Your task to perform on an android device: install app "DuckDuckGo Privacy Browser" Image 0: 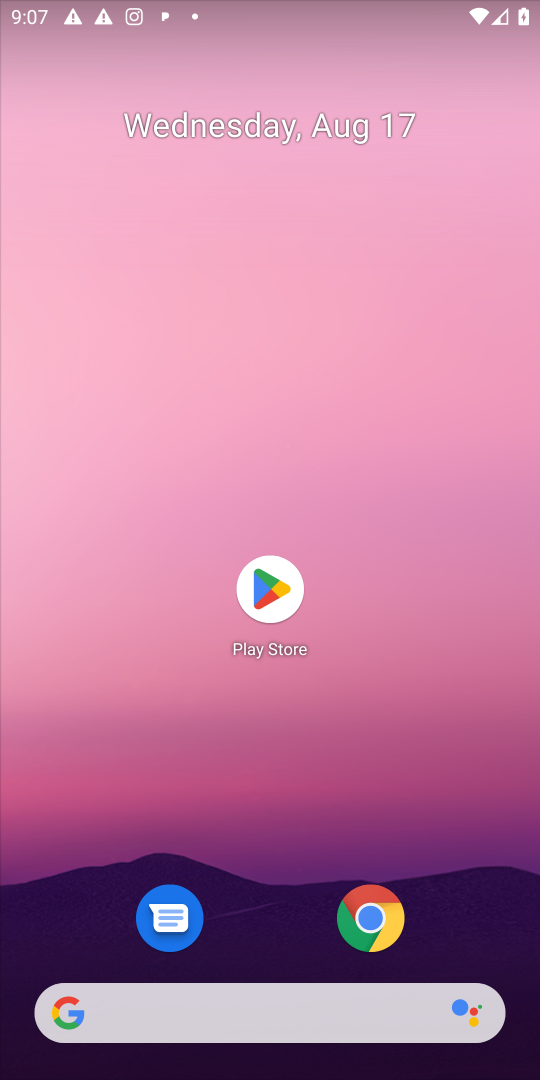
Step 0: click (277, 589)
Your task to perform on an android device: install app "DuckDuckGo Privacy Browser" Image 1: 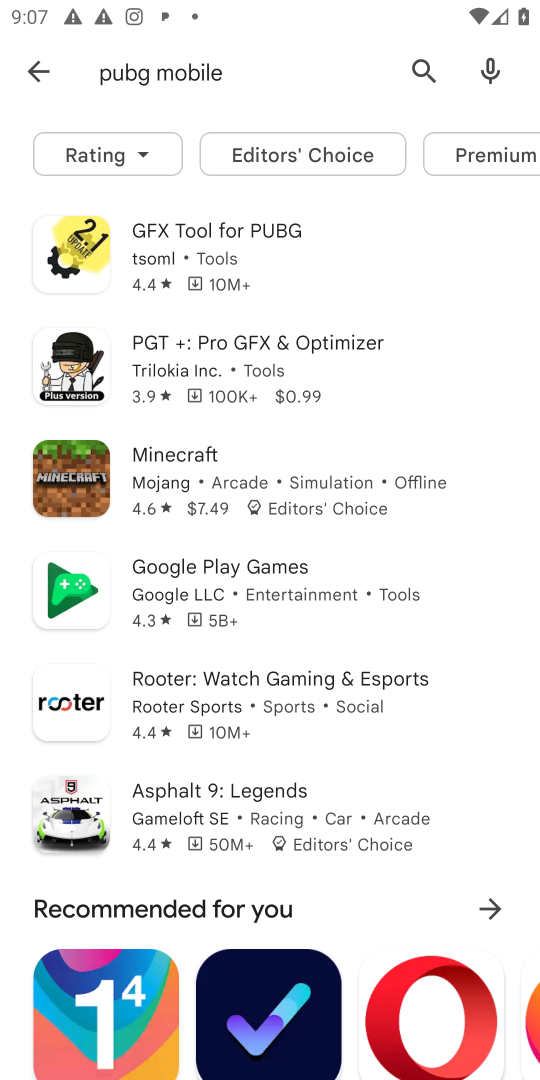
Step 1: click (413, 62)
Your task to perform on an android device: install app "DuckDuckGo Privacy Browser" Image 2: 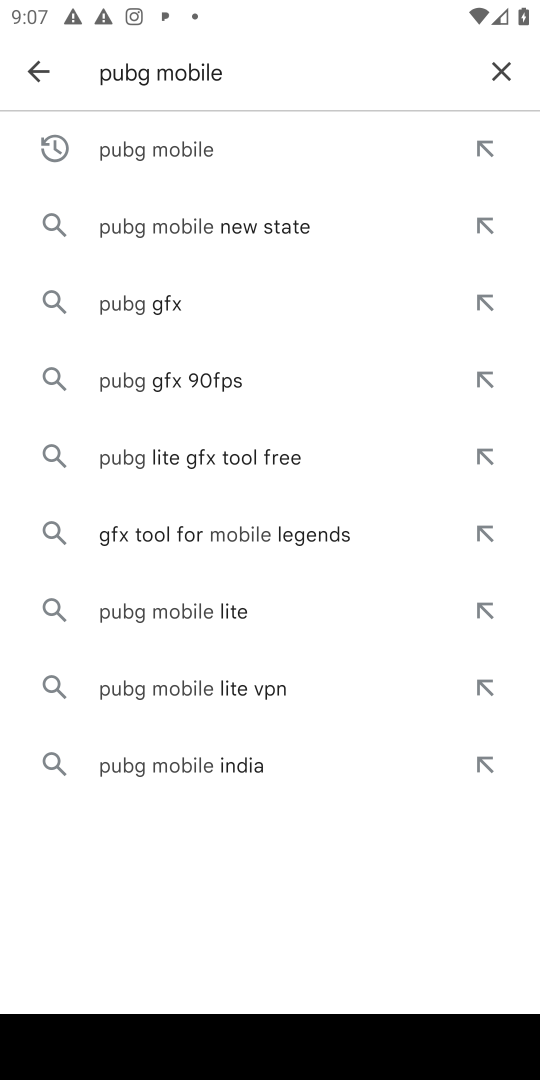
Step 2: click (496, 66)
Your task to perform on an android device: install app "DuckDuckGo Privacy Browser" Image 3: 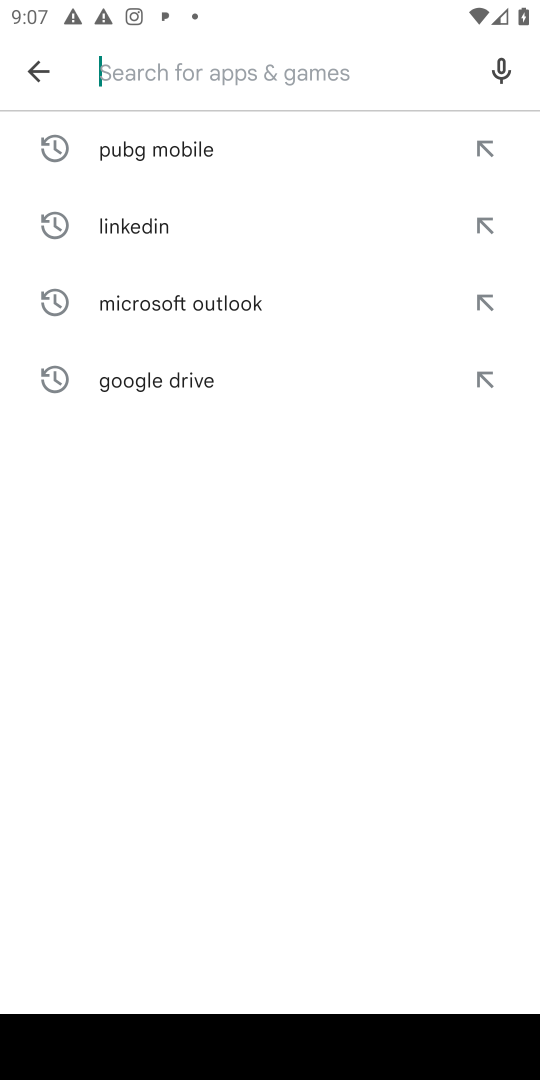
Step 3: type "DuckDuckGo Privacy Browser"
Your task to perform on an android device: install app "DuckDuckGo Privacy Browser" Image 4: 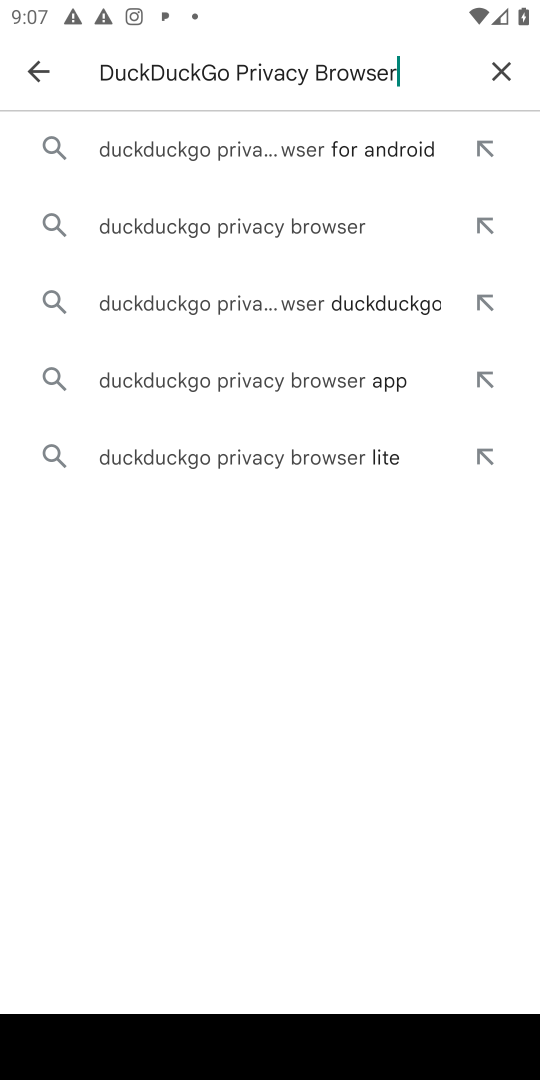
Step 4: click (303, 155)
Your task to perform on an android device: install app "DuckDuckGo Privacy Browser" Image 5: 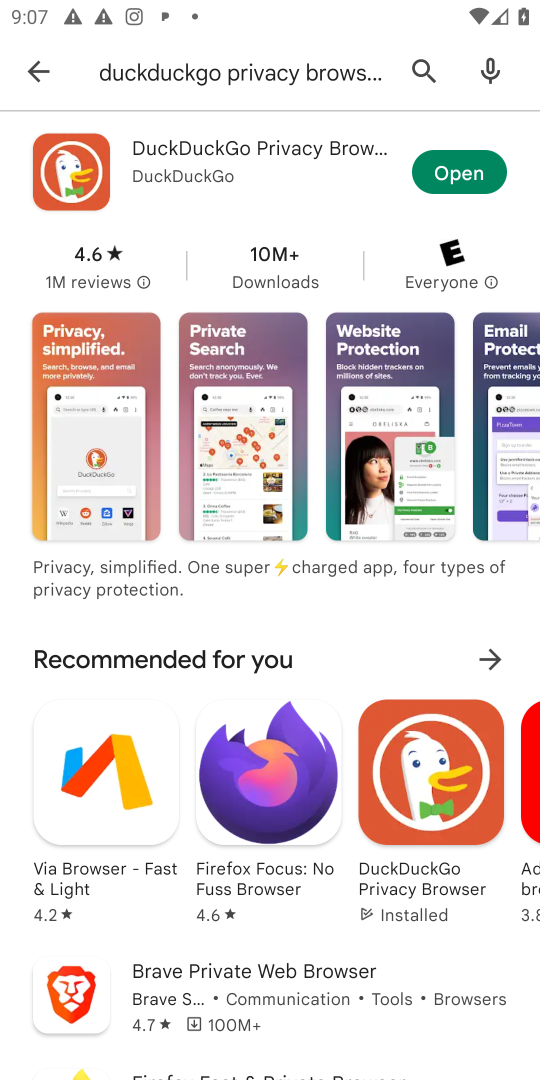
Step 5: task complete